Your task to perform on an android device: Search for pizza restaurants on Maps Image 0: 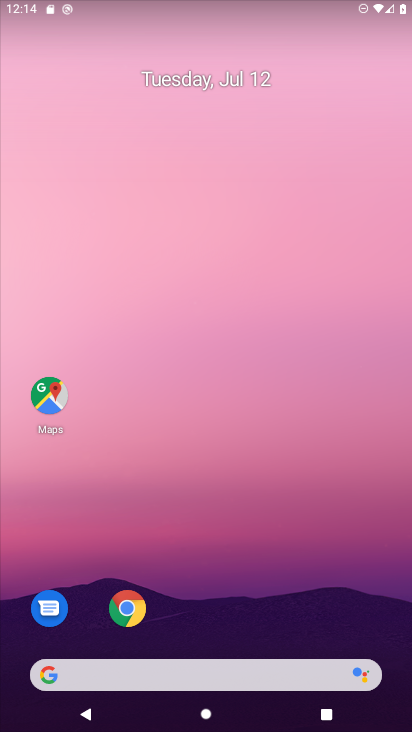
Step 0: drag from (212, 649) to (209, 136)
Your task to perform on an android device: Search for pizza restaurants on Maps Image 1: 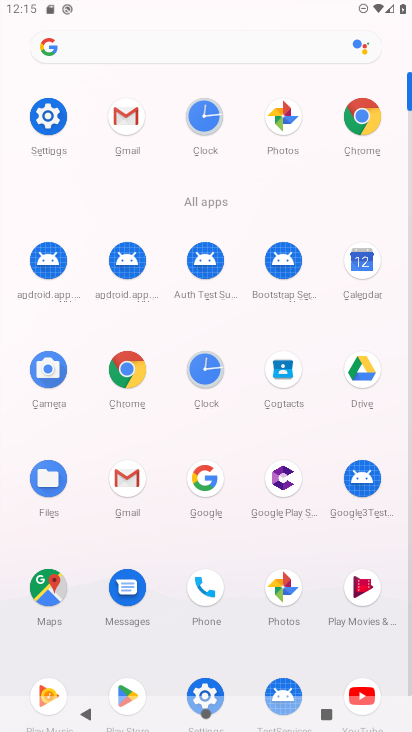
Step 1: click (49, 589)
Your task to perform on an android device: Search for pizza restaurants on Maps Image 2: 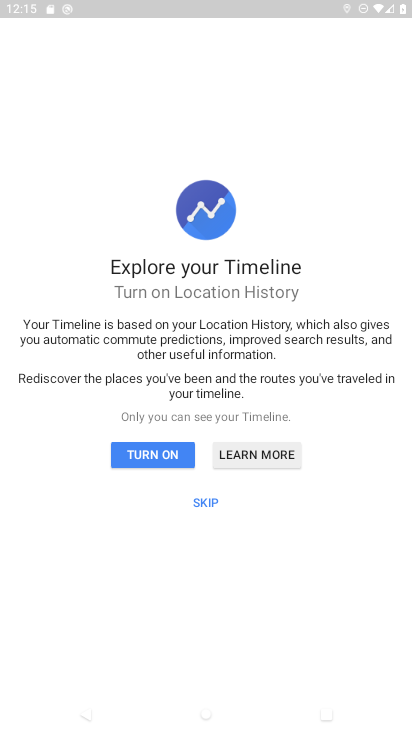
Step 2: click (234, 489)
Your task to perform on an android device: Search for pizza restaurants on Maps Image 3: 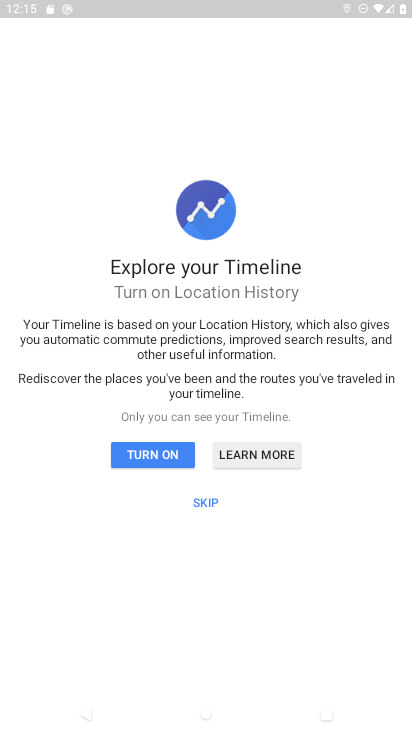
Step 3: click (207, 502)
Your task to perform on an android device: Search for pizza restaurants on Maps Image 4: 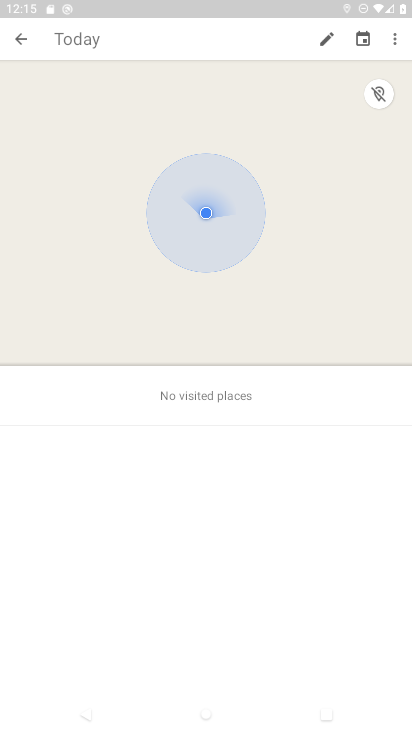
Step 4: click (28, 34)
Your task to perform on an android device: Search for pizza restaurants on Maps Image 5: 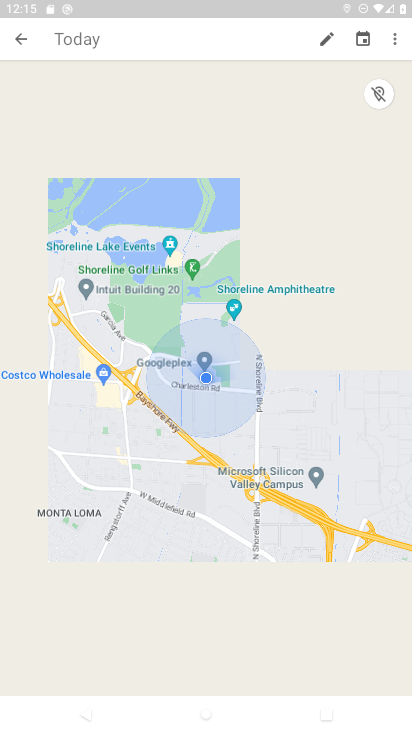
Step 5: click (19, 36)
Your task to perform on an android device: Search for pizza restaurants on Maps Image 6: 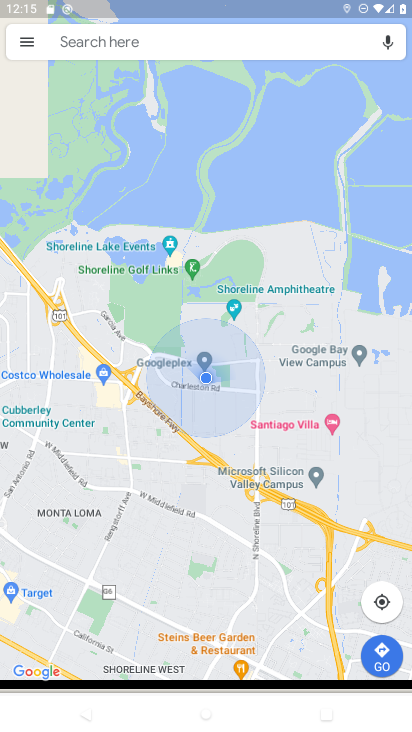
Step 6: click (105, 57)
Your task to perform on an android device: Search for pizza restaurants on Maps Image 7: 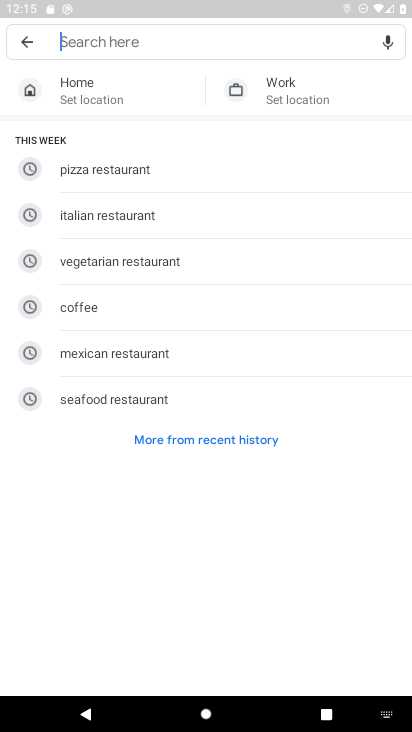
Step 7: type "pizza restaurants"
Your task to perform on an android device: Search for pizza restaurants on Maps Image 8: 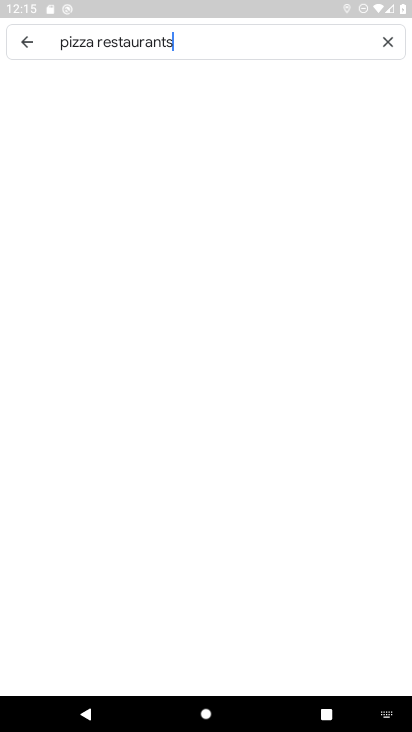
Step 8: type ""
Your task to perform on an android device: Search for pizza restaurants on Maps Image 9: 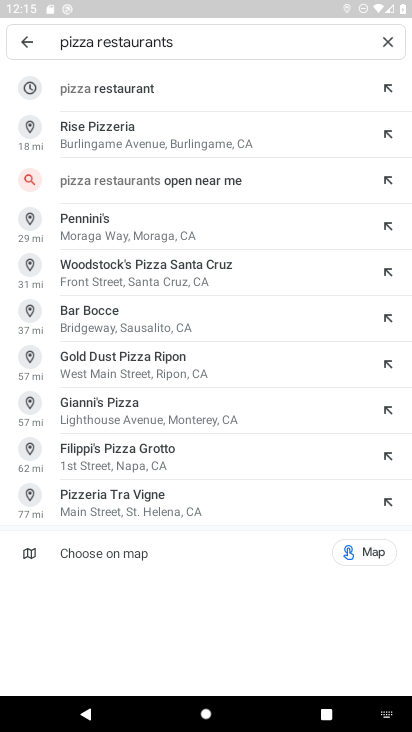
Step 9: click (152, 80)
Your task to perform on an android device: Search for pizza restaurants on Maps Image 10: 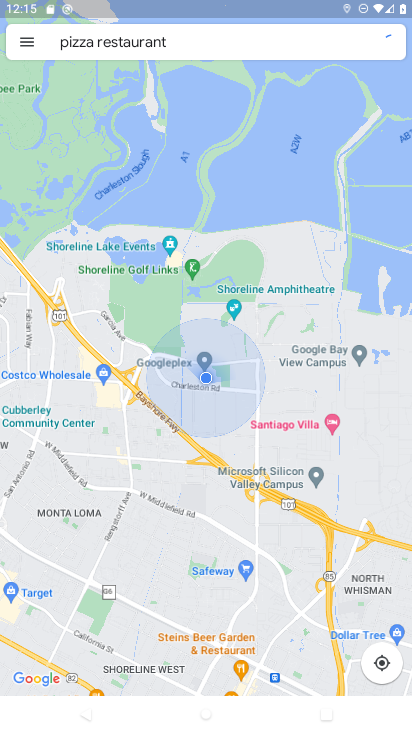
Step 10: task complete